Your task to perform on an android device: check data usage Image 0: 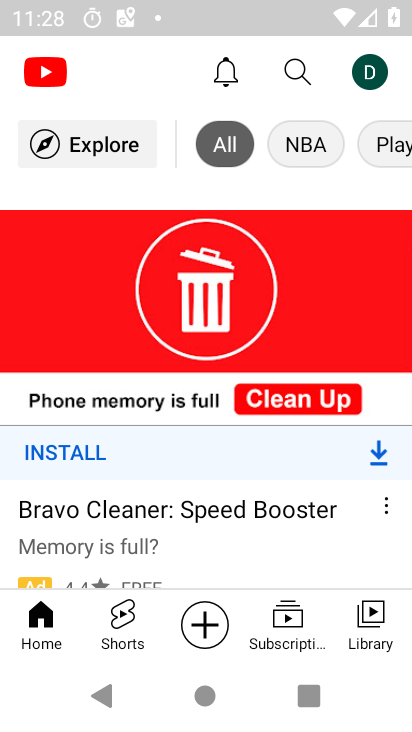
Step 0: press back button
Your task to perform on an android device: check data usage Image 1: 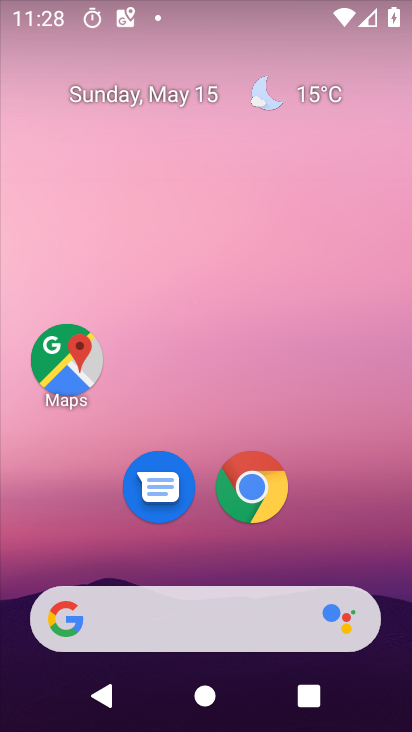
Step 1: drag from (395, 645) to (411, 258)
Your task to perform on an android device: check data usage Image 2: 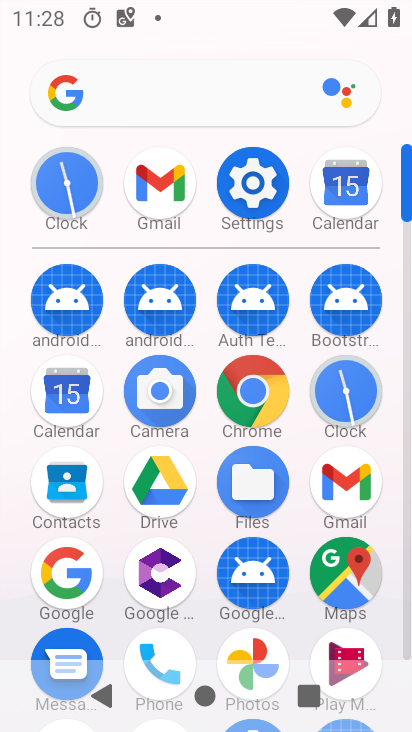
Step 2: click (264, 180)
Your task to perform on an android device: check data usage Image 3: 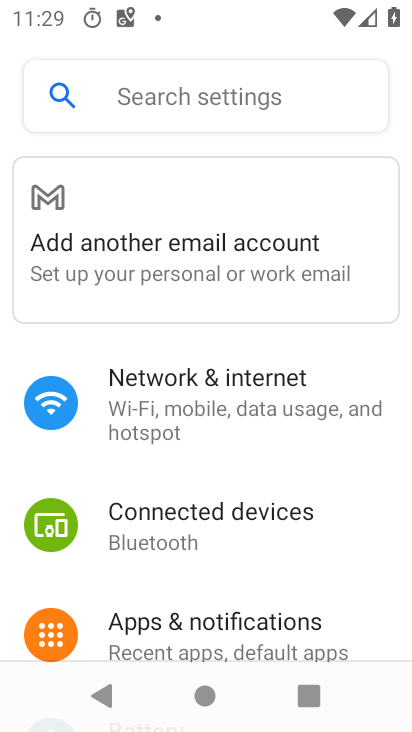
Step 3: drag from (333, 602) to (329, 375)
Your task to perform on an android device: check data usage Image 4: 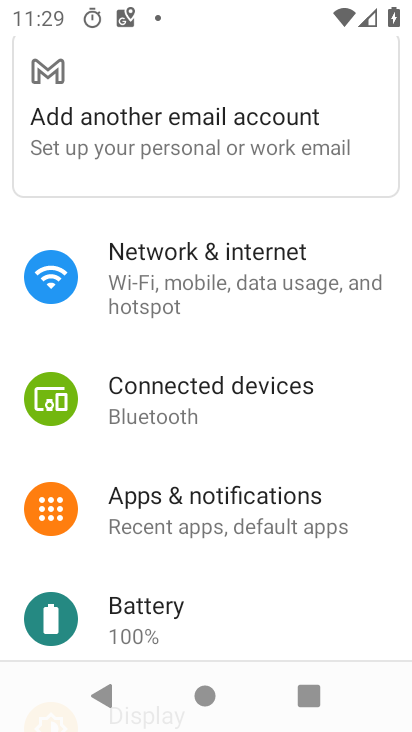
Step 4: click (183, 285)
Your task to perform on an android device: check data usage Image 5: 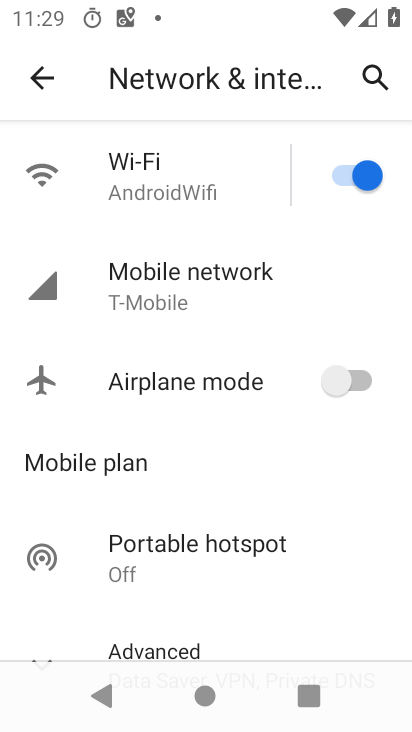
Step 5: drag from (239, 594) to (259, 202)
Your task to perform on an android device: check data usage Image 6: 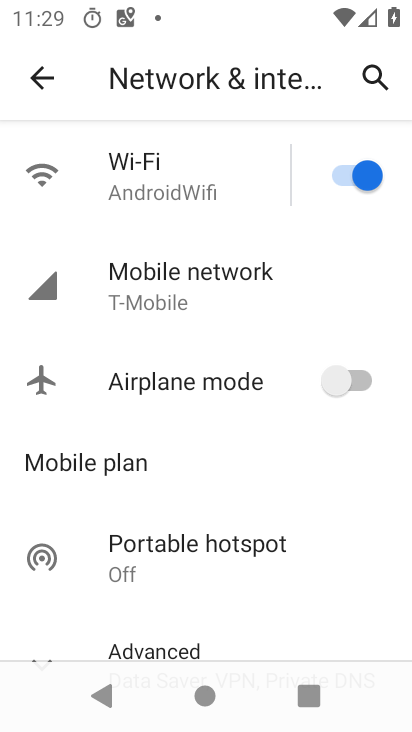
Step 6: click (169, 264)
Your task to perform on an android device: check data usage Image 7: 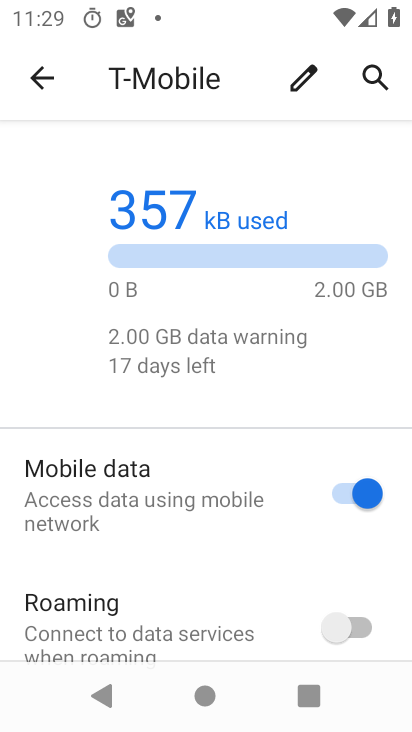
Step 7: task complete